Your task to perform on an android device: turn on showing notifications on the lock screen Image 0: 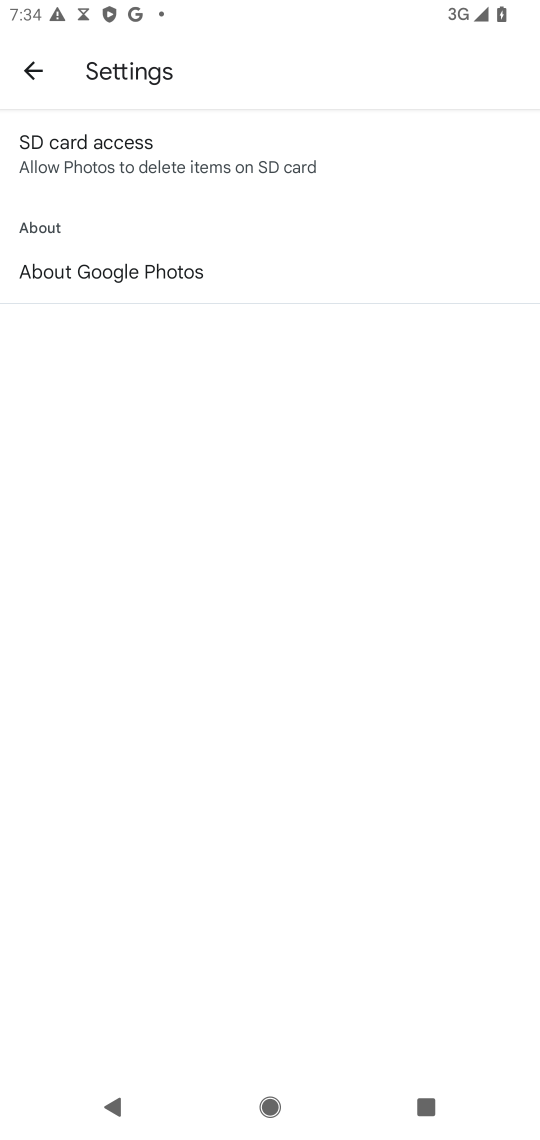
Step 0: press home button
Your task to perform on an android device: turn on showing notifications on the lock screen Image 1: 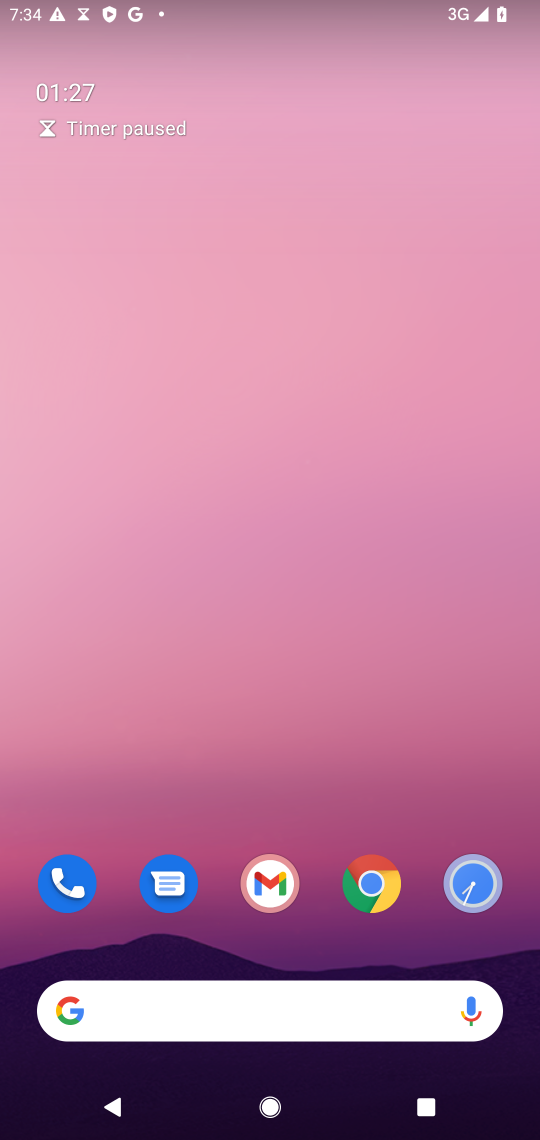
Step 1: drag from (206, 1011) to (431, 108)
Your task to perform on an android device: turn on showing notifications on the lock screen Image 2: 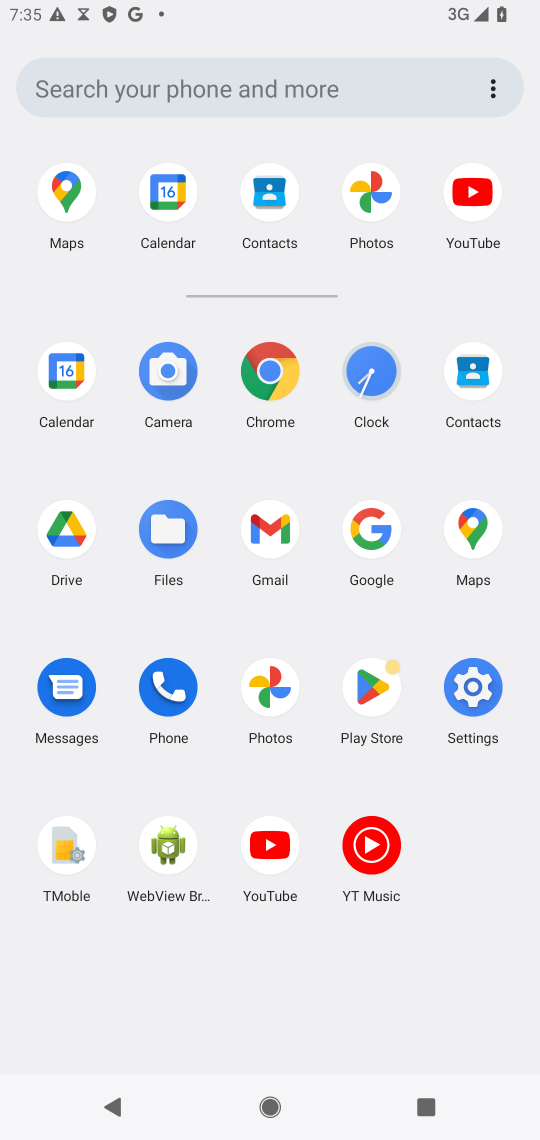
Step 2: click (470, 690)
Your task to perform on an android device: turn on showing notifications on the lock screen Image 3: 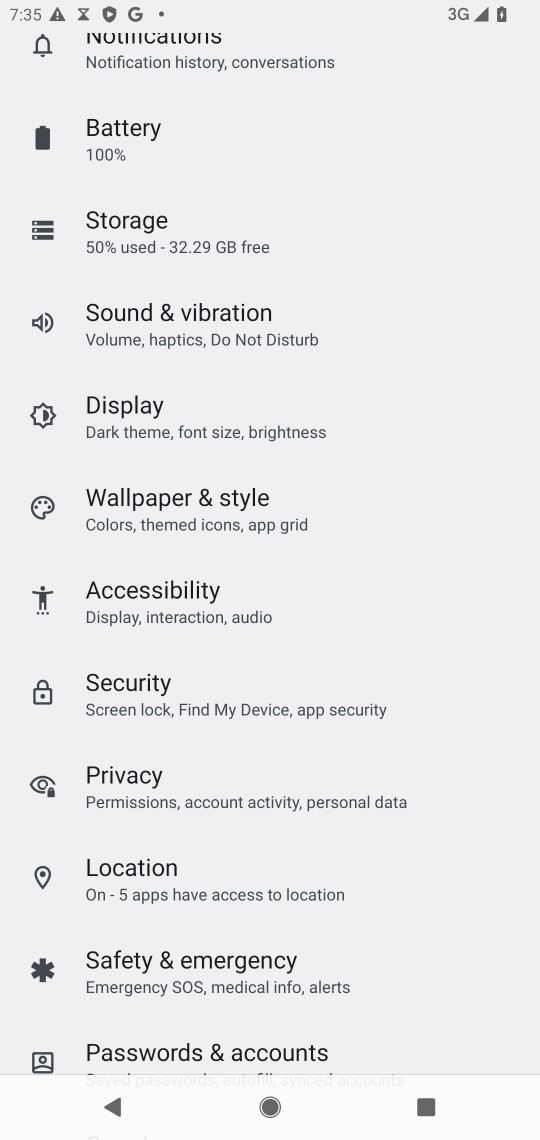
Step 3: drag from (298, 252) to (269, 500)
Your task to perform on an android device: turn on showing notifications on the lock screen Image 4: 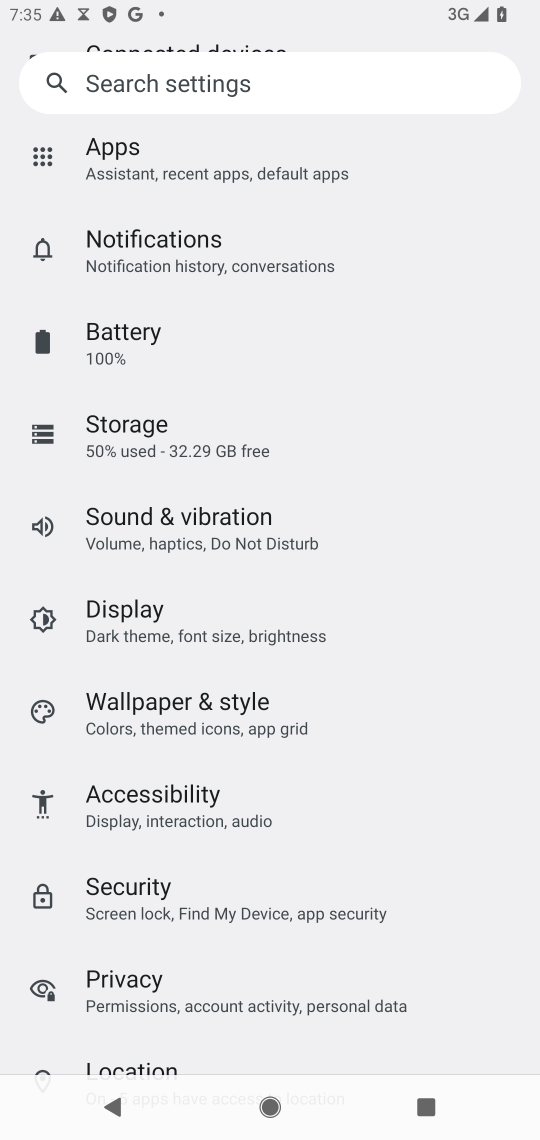
Step 4: click (199, 256)
Your task to perform on an android device: turn on showing notifications on the lock screen Image 5: 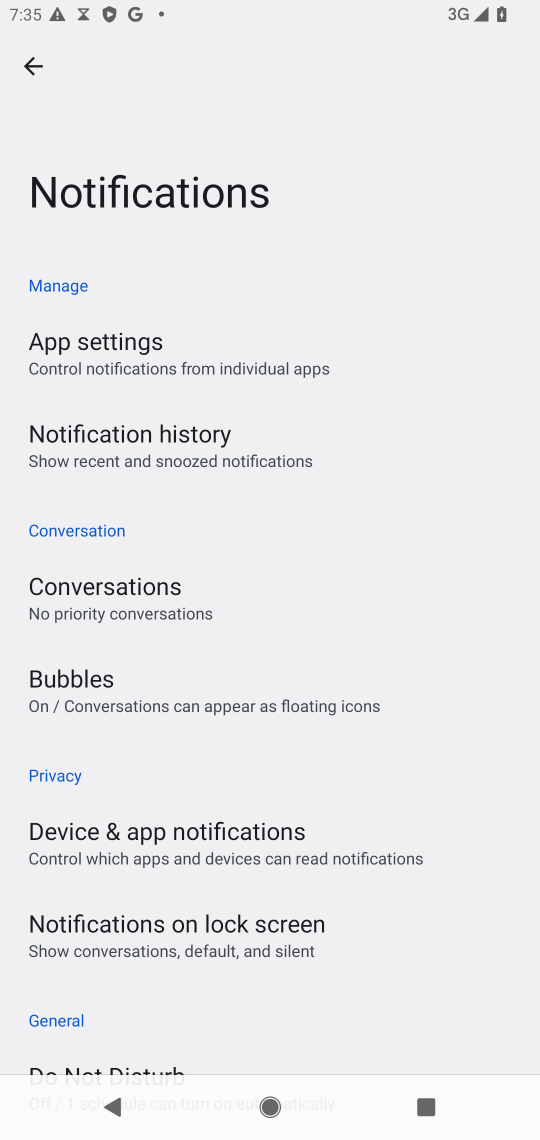
Step 5: click (126, 927)
Your task to perform on an android device: turn on showing notifications on the lock screen Image 6: 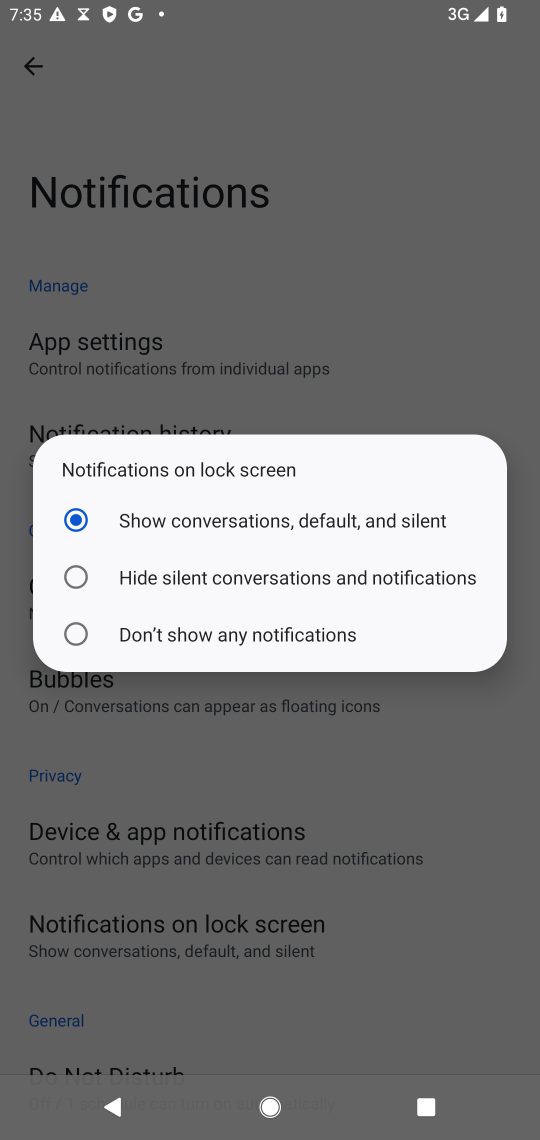
Step 6: click (71, 520)
Your task to perform on an android device: turn on showing notifications on the lock screen Image 7: 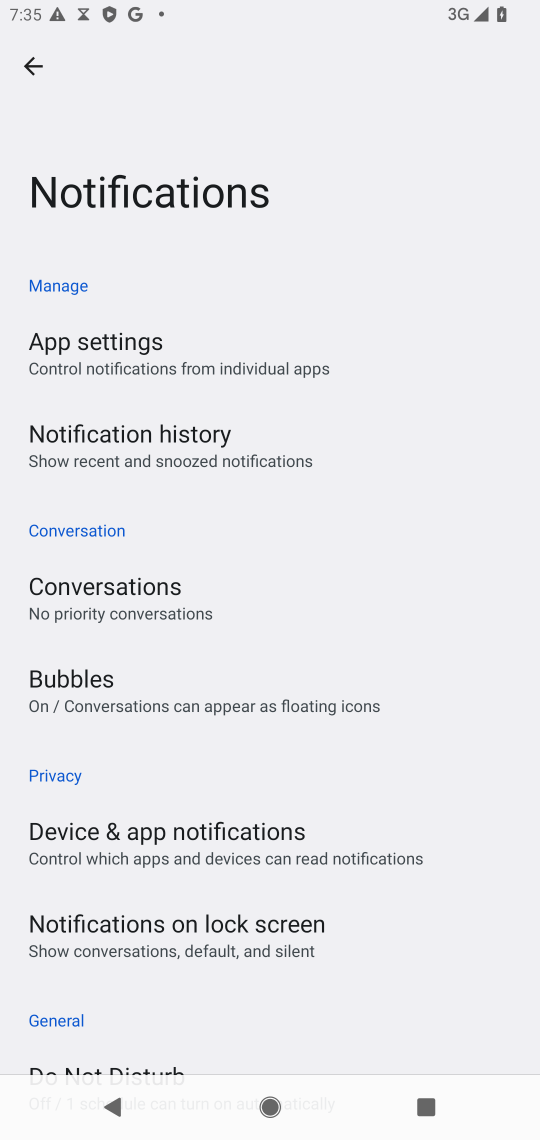
Step 7: task complete